Your task to perform on an android device: Go to internet settings Image 0: 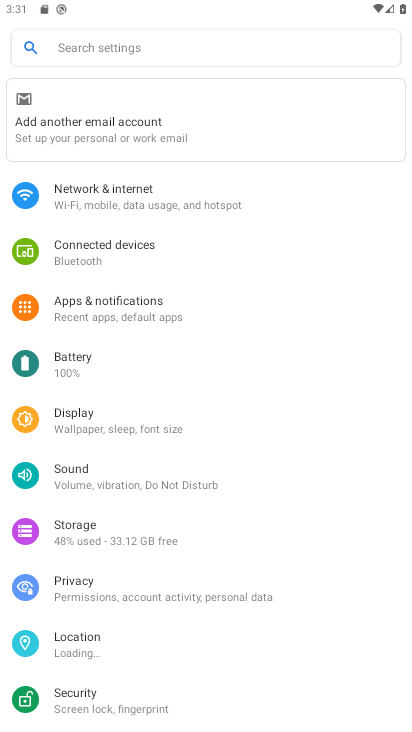
Step 0: click (134, 127)
Your task to perform on an android device: Go to internet settings Image 1: 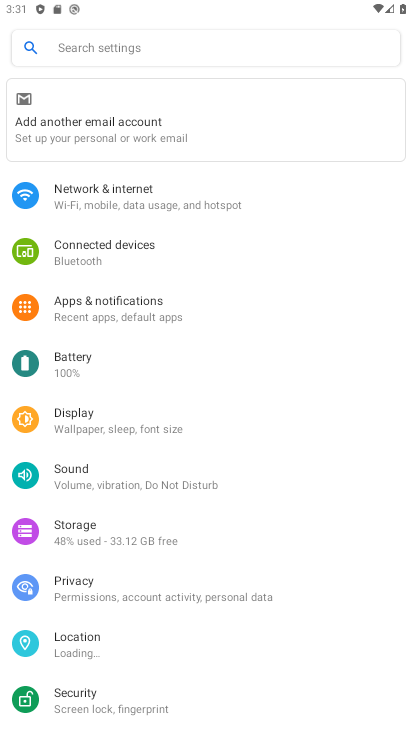
Step 1: click (139, 173)
Your task to perform on an android device: Go to internet settings Image 2: 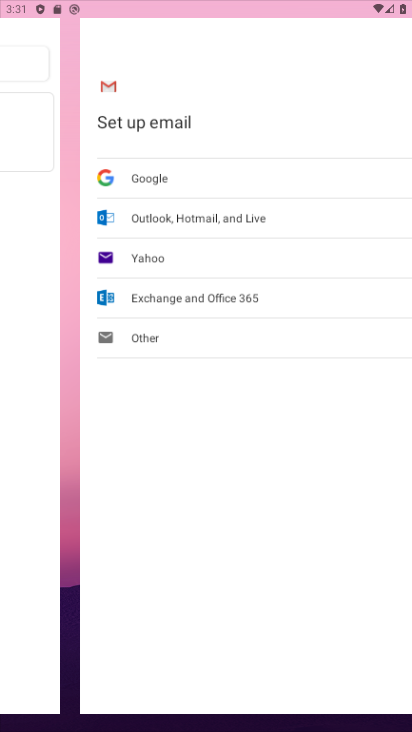
Step 2: click (121, 196)
Your task to perform on an android device: Go to internet settings Image 3: 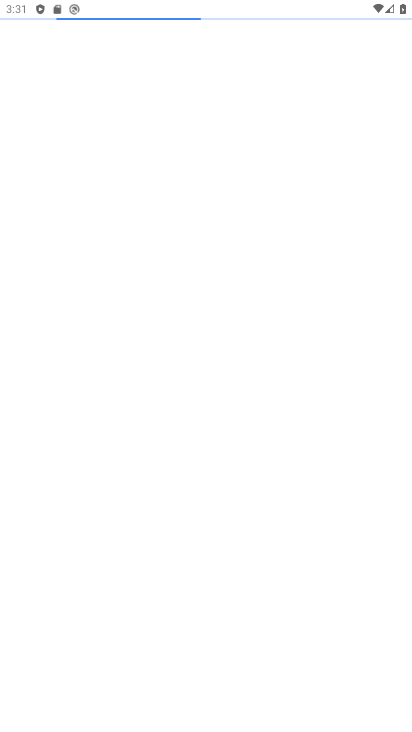
Step 3: drag from (213, 8) to (253, 573)
Your task to perform on an android device: Go to internet settings Image 4: 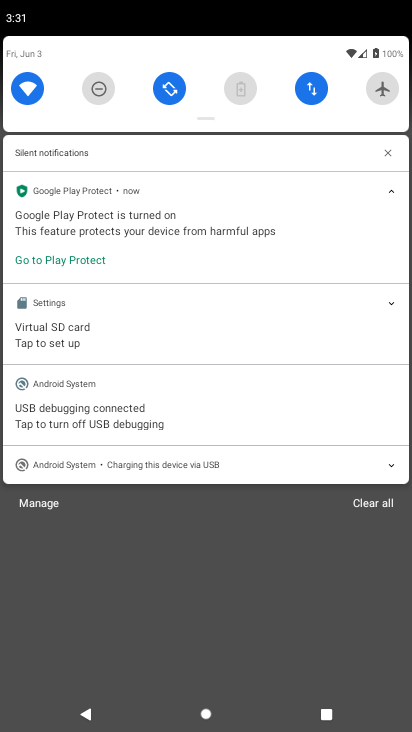
Step 4: click (316, 84)
Your task to perform on an android device: Go to internet settings Image 5: 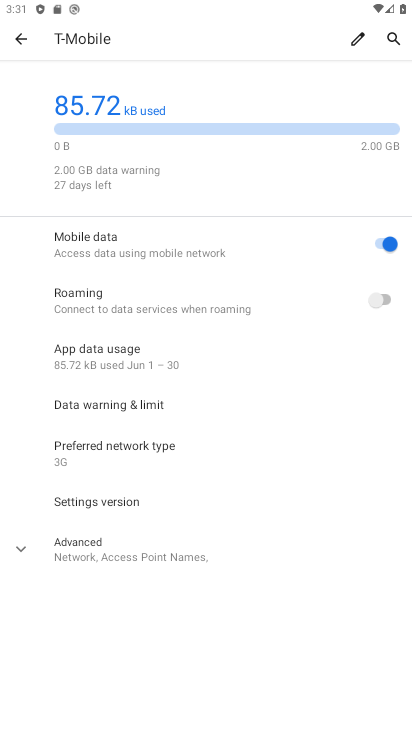
Step 5: task complete